Your task to perform on an android device: change keyboard looks Image 0: 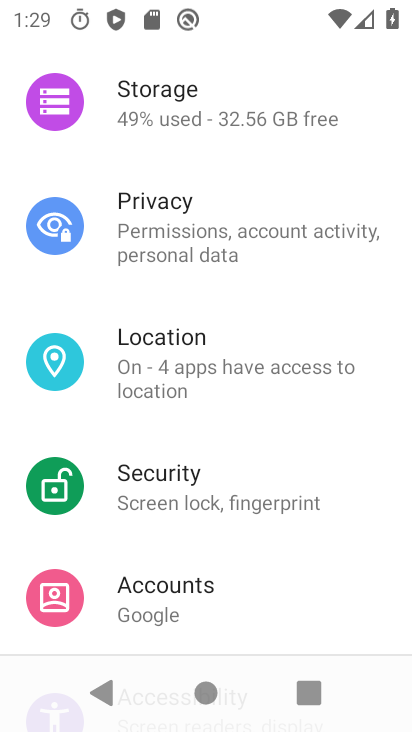
Step 0: task impossible